Your task to perform on an android device: turn off smart reply in the gmail app Image 0: 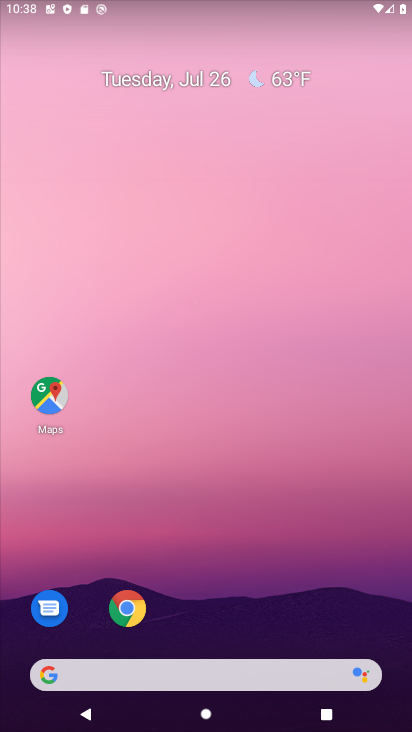
Step 0: drag from (225, 634) to (217, 197)
Your task to perform on an android device: turn off smart reply in the gmail app Image 1: 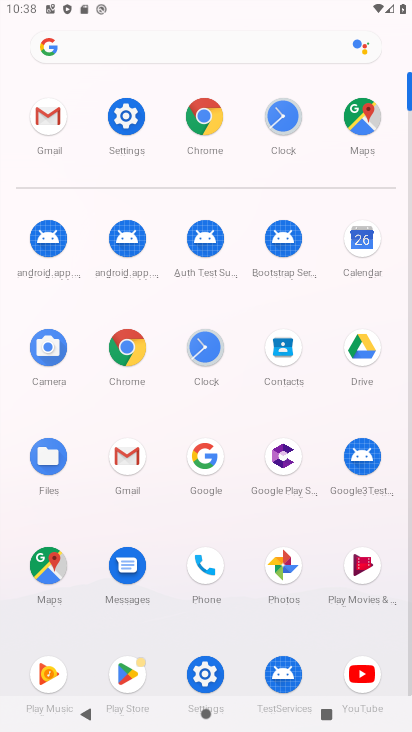
Step 1: click (40, 124)
Your task to perform on an android device: turn off smart reply in the gmail app Image 2: 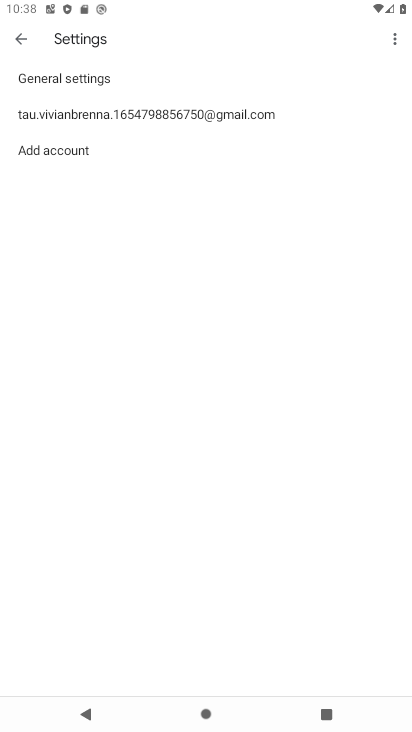
Step 2: click (149, 122)
Your task to perform on an android device: turn off smart reply in the gmail app Image 3: 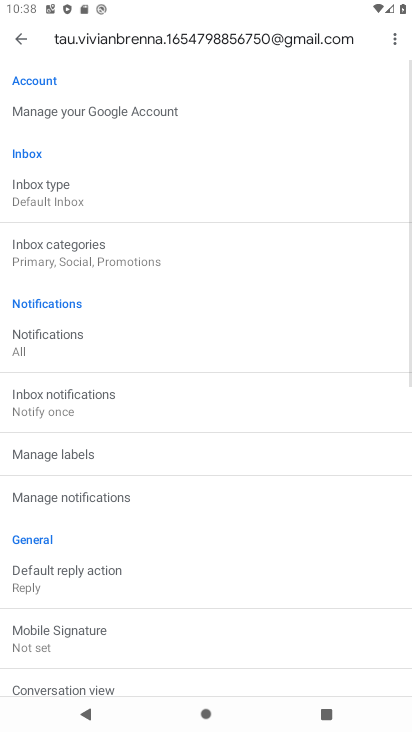
Step 3: drag from (278, 646) to (318, 106)
Your task to perform on an android device: turn off smart reply in the gmail app Image 4: 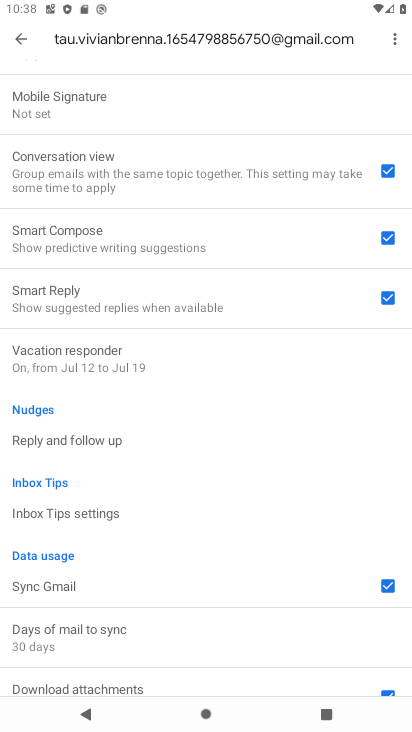
Step 4: click (391, 302)
Your task to perform on an android device: turn off smart reply in the gmail app Image 5: 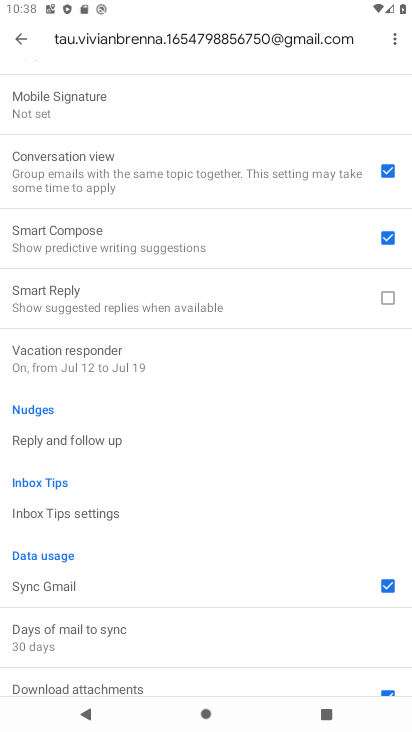
Step 5: task complete